Your task to perform on an android device: star an email in the gmail app Image 0: 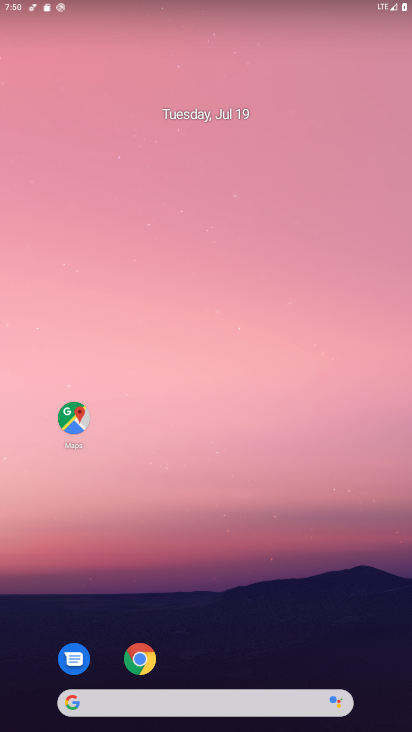
Step 0: drag from (173, 682) to (219, 203)
Your task to perform on an android device: star an email in the gmail app Image 1: 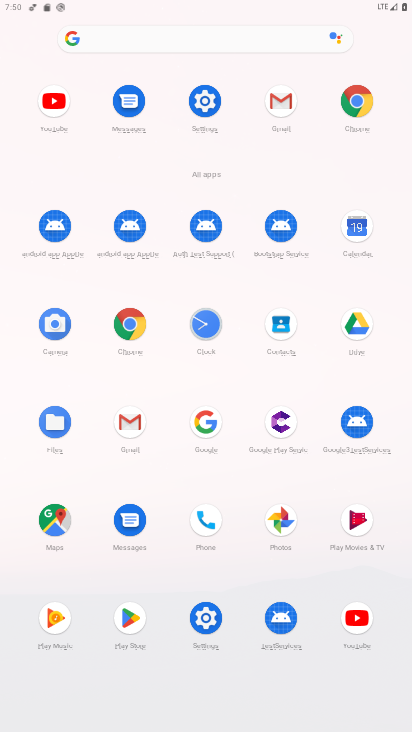
Step 1: click (129, 431)
Your task to perform on an android device: star an email in the gmail app Image 2: 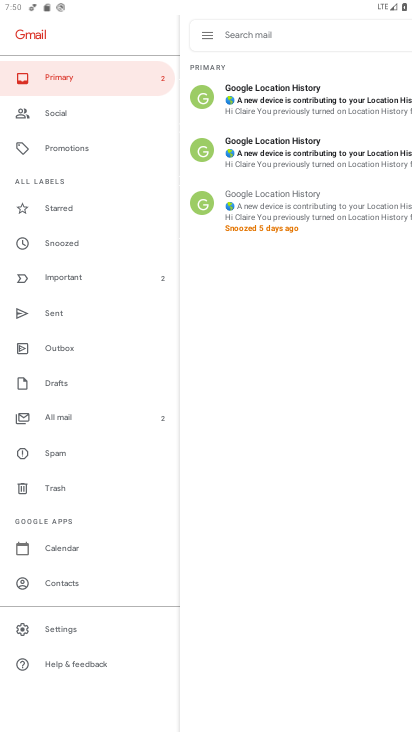
Step 2: click (173, 55)
Your task to perform on an android device: star an email in the gmail app Image 3: 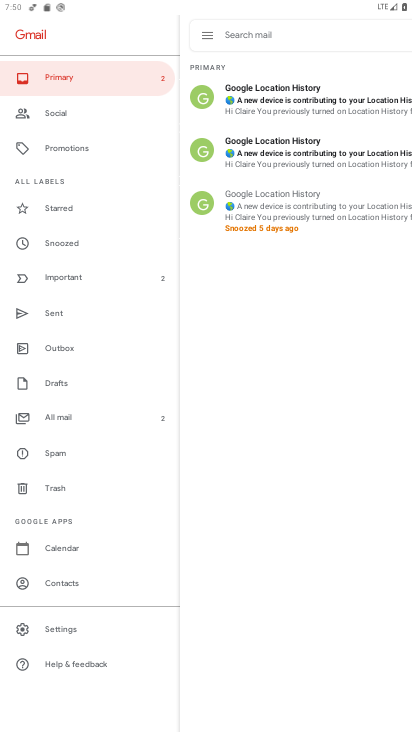
Step 3: drag from (65, 643) to (70, 413)
Your task to perform on an android device: star an email in the gmail app Image 4: 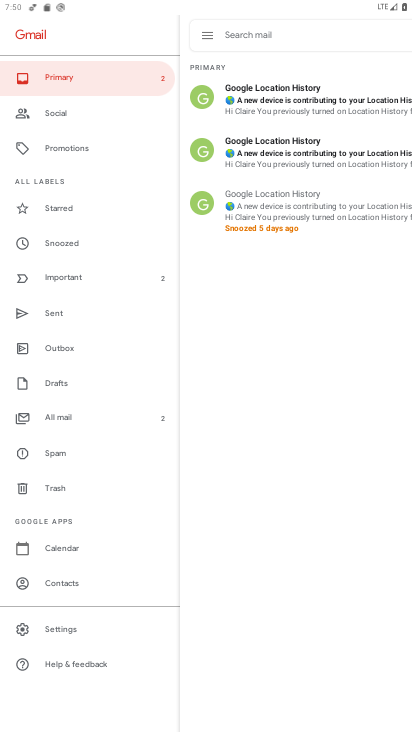
Step 4: click (255, 42)
Your task to perform on an android device: star an email in the gmail app Image 5: 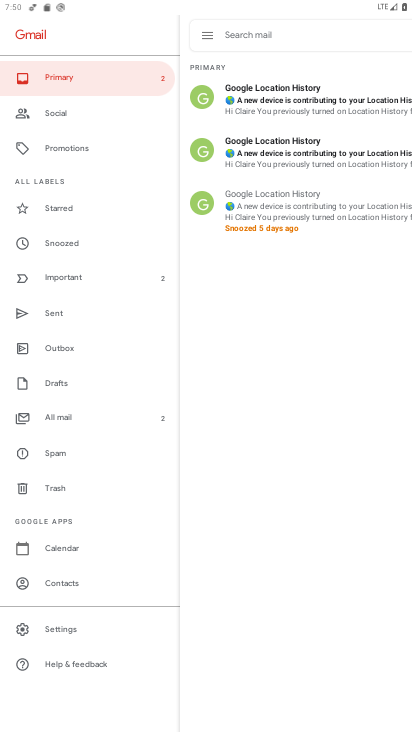
Step 5: drag from (280, 27) to (2, 193)
Your task to perform on an android device: star an email in the gmail app Image 6: 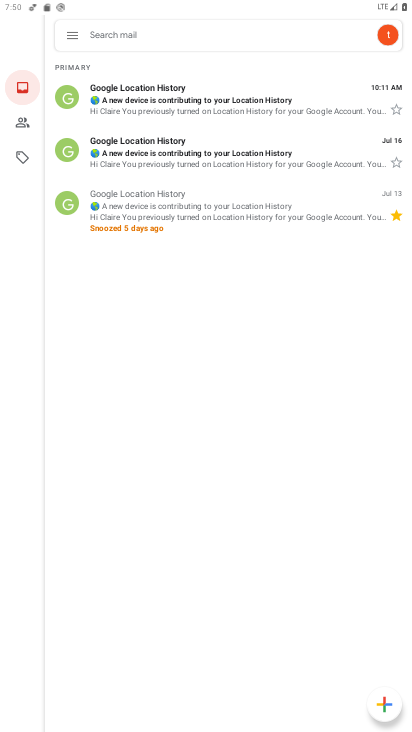
Step 6: click (392, 105)
Your task to perform on an android device: star an email in the gmail app Image 7: 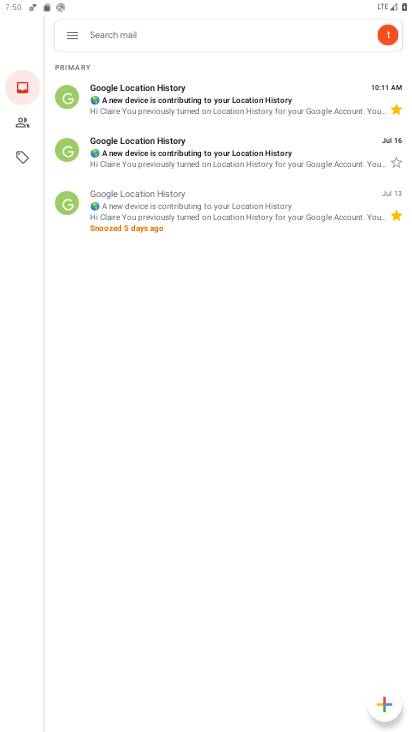
Step 7: task complete